Your task to perform on an android device: open app "NewsBreak: Local News & Alerts" Image 0: 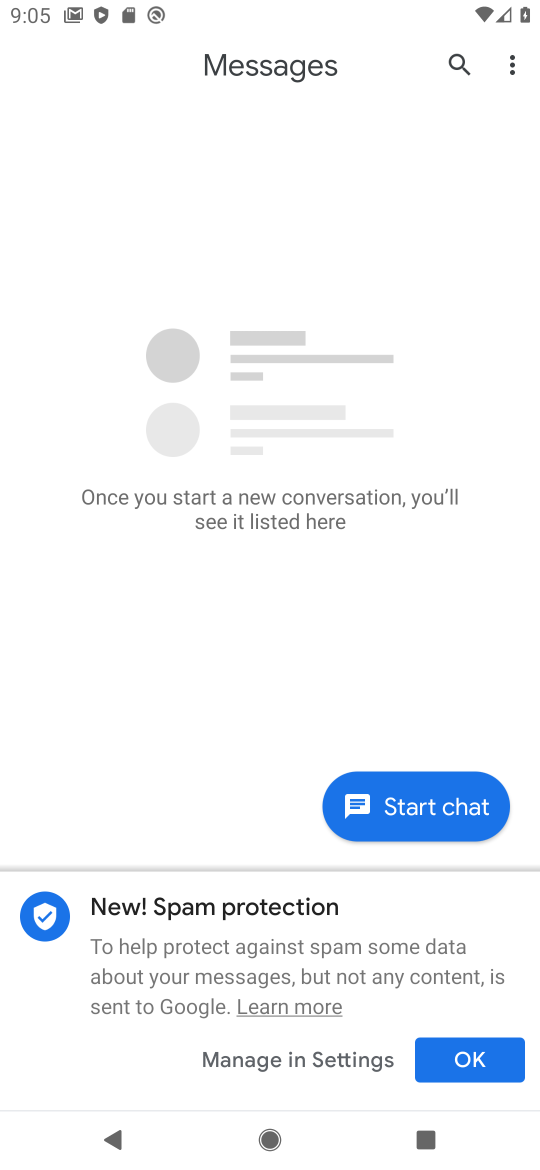
Step 0: press home button
Your task to perform on an android device: open app "NewsBreak: Local News & Alerts" Image 1: 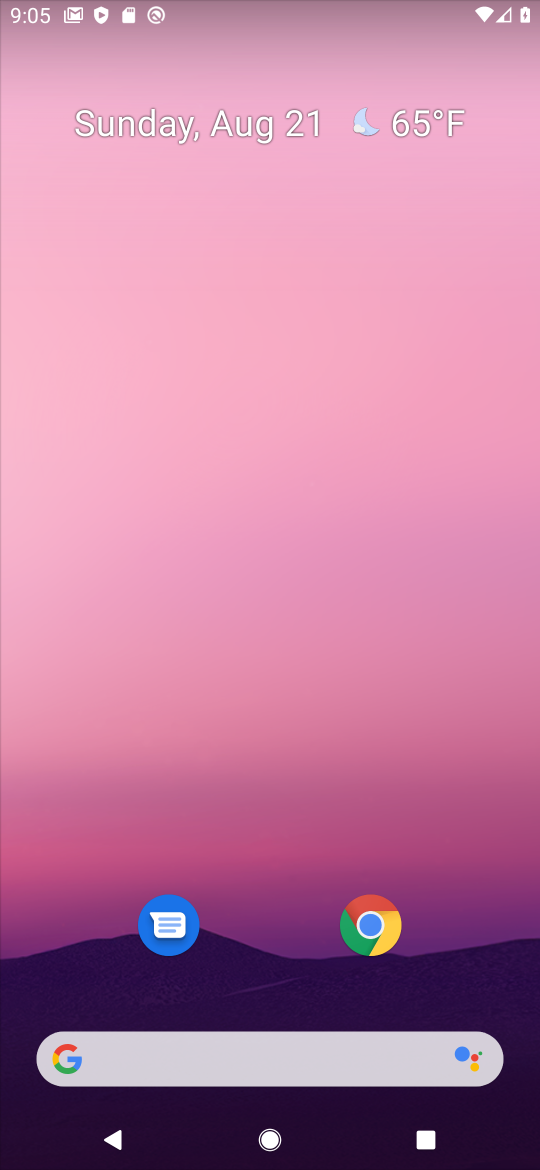
Step 1: drag from (215, 979) to (332, 21)
Your task to perform on an android device: open app "NewsBreak: Local News & Alerts" Image 2: 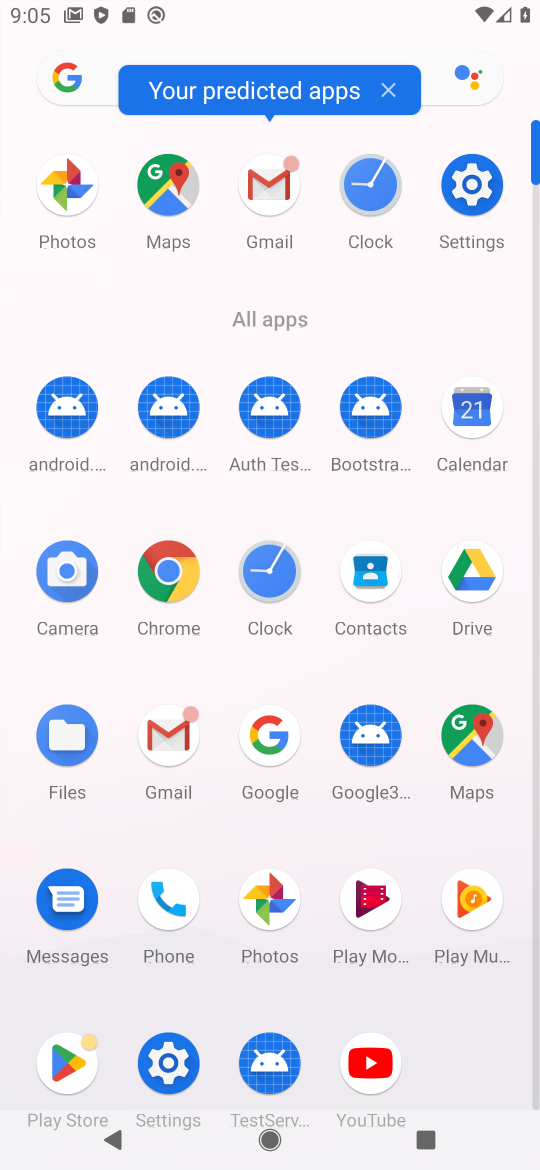
Step 2: click (75, 1042)
Your task to perform on an android device: open app "NewsBreak: Local News & Alerts" Image 3: 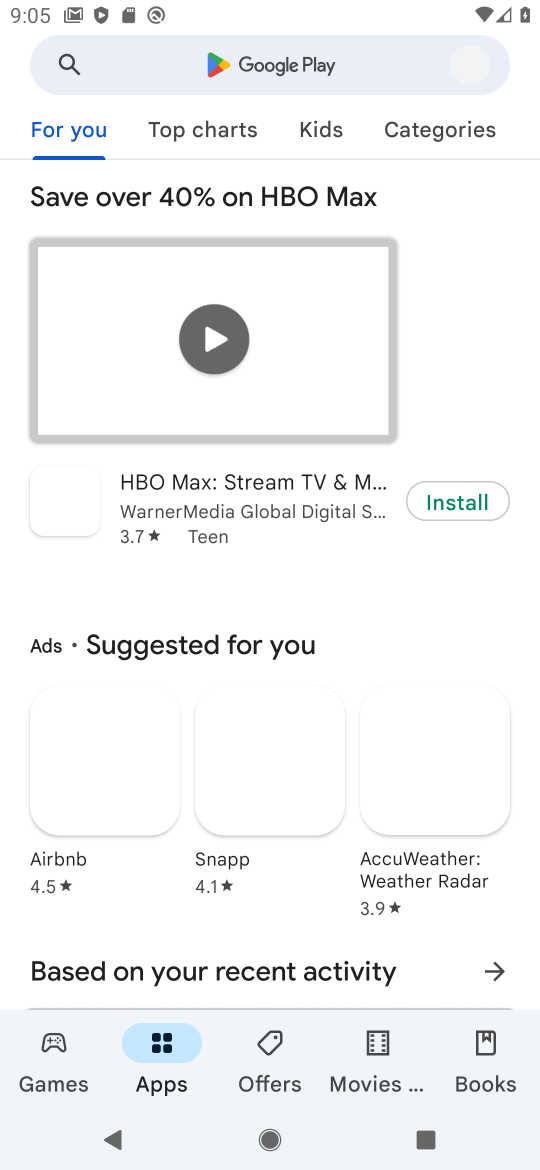
Step 3: click (307, 51)
Your task to perform on an android device: open app "NewsBreak: Local News & Alerts" Image 4: 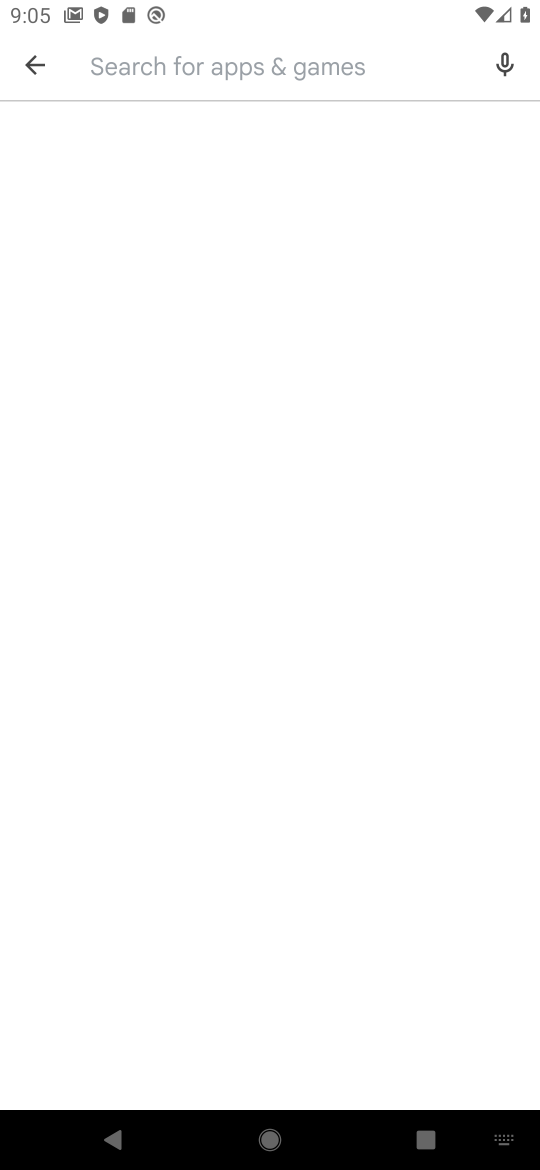
Step 4: type "newsbreak"
Your task to perform on an android device: open app "NewsBreak: Local News & Alerts" Image 5: 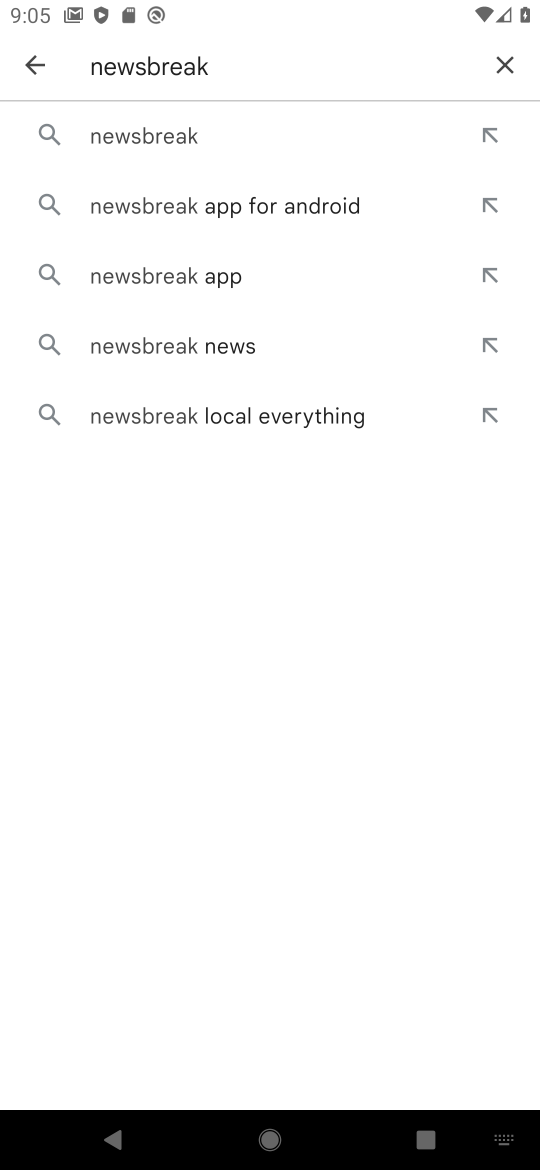
Step 5: click (185, 129)
Your task to perform on an android device: open app "NewsBreak: Local News & Alerts" Image 6: 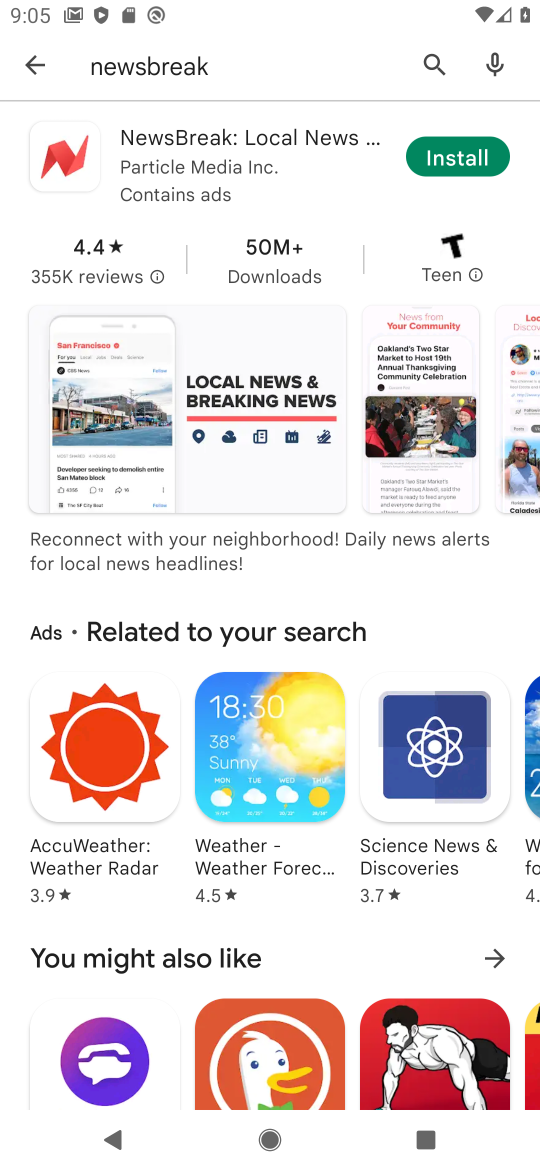
Step 6: click (223, 163)
Your task to perform on an android device: open app "NewsBreak: Local News & Alerts" Image 7: 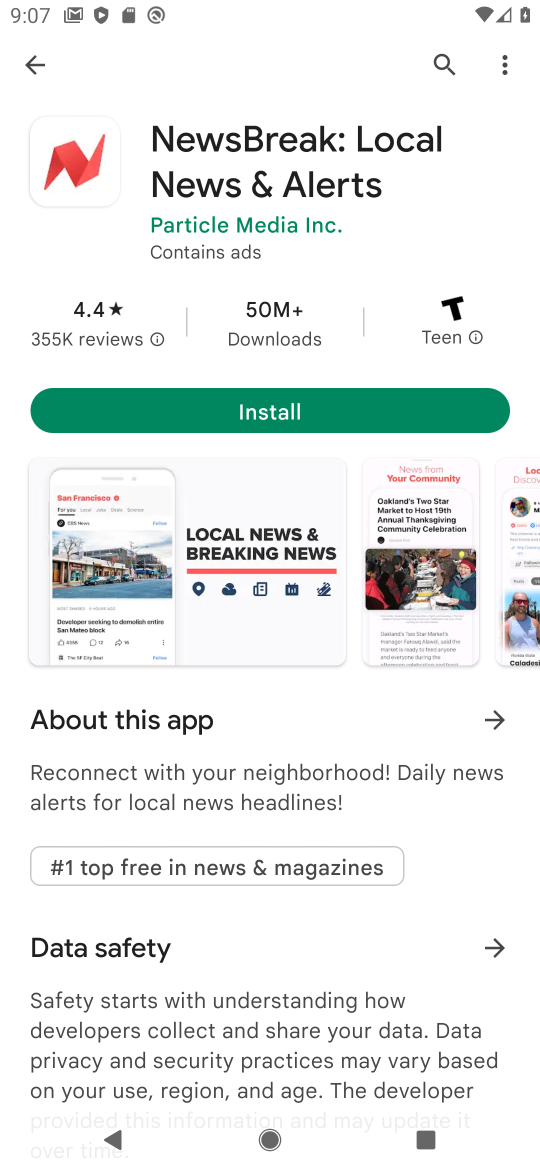
Step 7: task complete